Your task to perform on an android device: check android version Image 0: 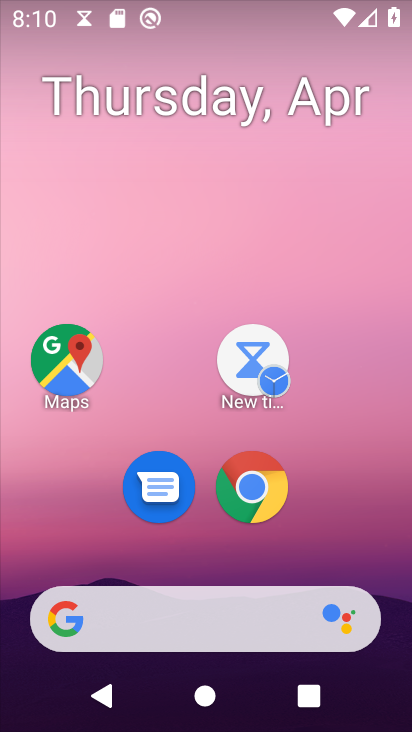
Step 0: drag from (364, 479) to (337, 102)
Your task to perform on an android device: check android version Image 1: 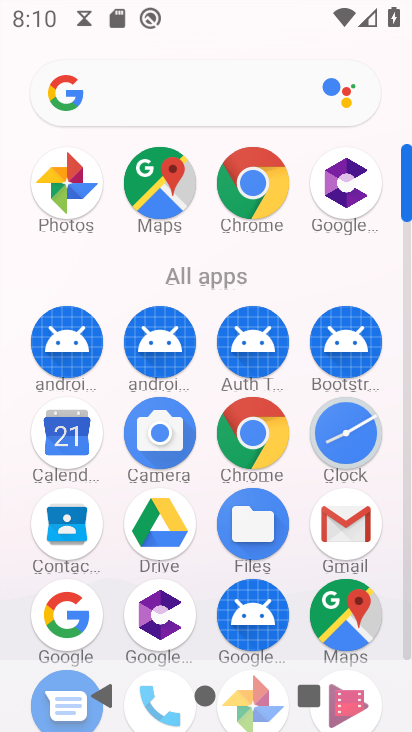
Step 1: drag from (297, 590) to (319, 265)
Your task to perform on an android device: check android version Image 2: 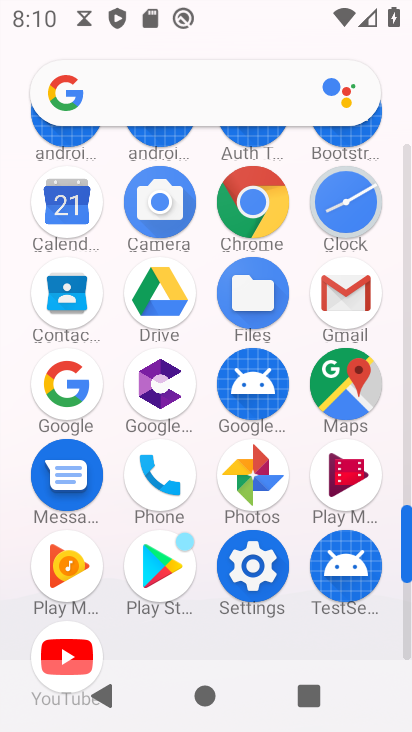
Step 2: click (263, 594)
Your task to perform on an android device: check android version Image 3: 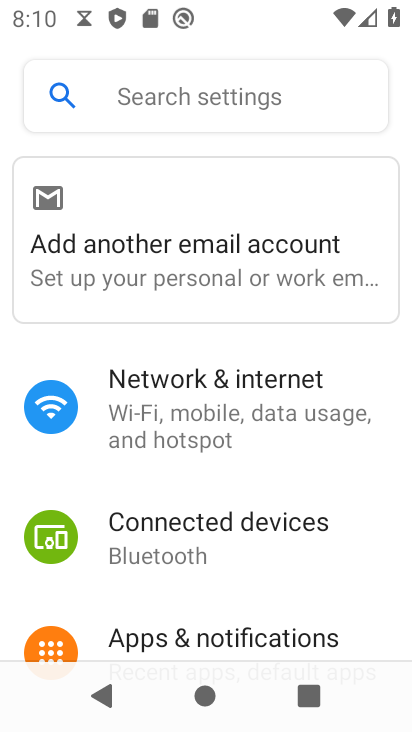
Step 3: drag from (385, 542) to (362, 144)
Your task to perform on an android device: check android version Image 4: 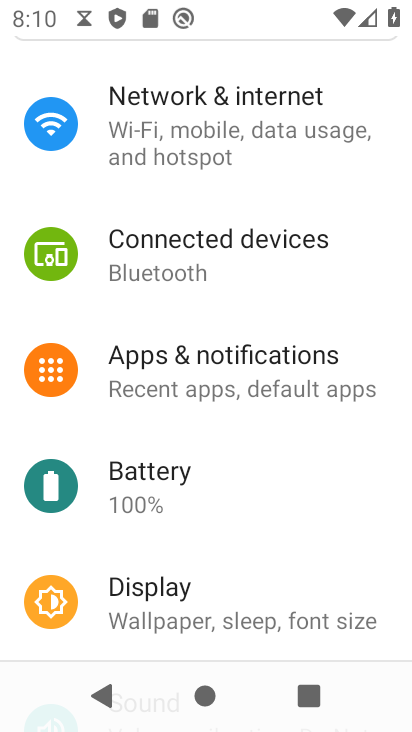
Step 4: drag from (300, 587) to (341, 124)
Your task to perform on an android device: check android version Image 5: 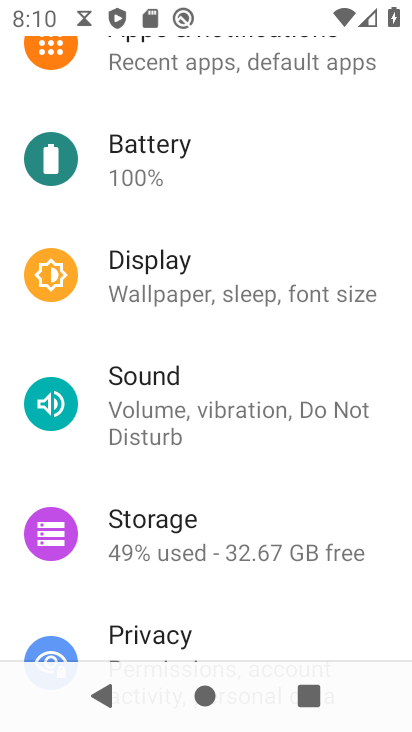
Step 5: drag from (354, 606) to (380, 75)
Your task to perform on an android device: check android version Image 6: 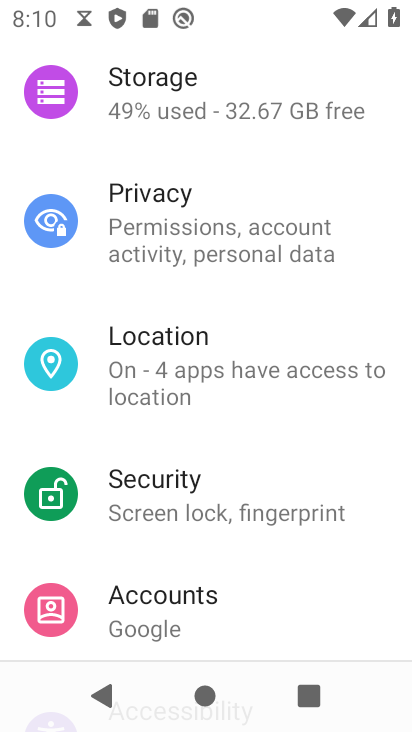
Step 6: drag from (272, 629) to (286, 112)
Your task to perform on an android device: check android version Image 7: 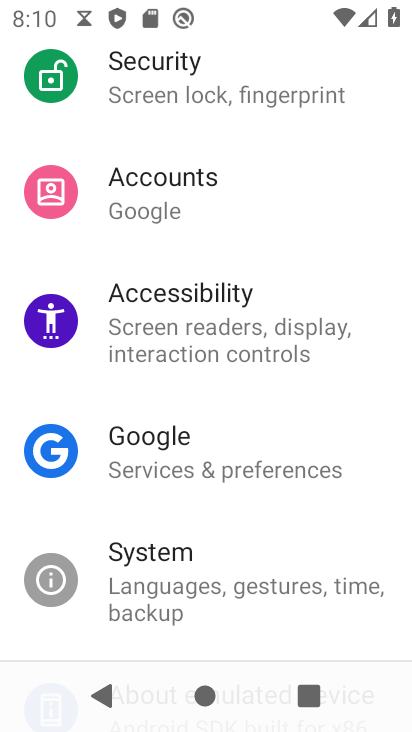
Step 7: drag from (325, 580) to (326, 235)
Your task to perform on an android device: check android version Image 8: 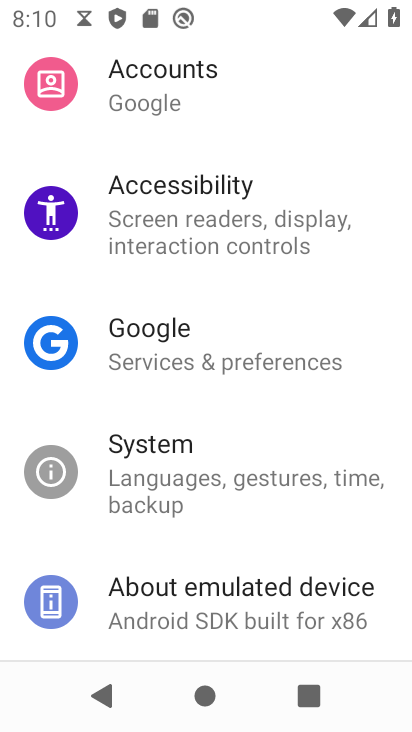
Step 8: click (243, 605)
Your task to perform on an android device: check android version Image 9: 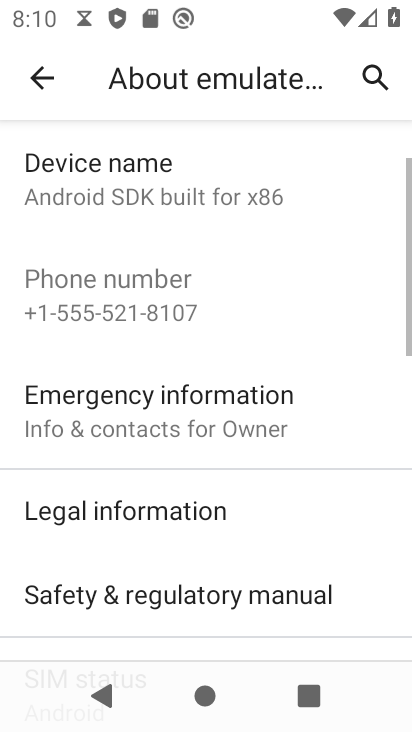
Step 9: drag from (370, 539) to (332, 166)
Your task to perform on an android device: check android version Image 10: 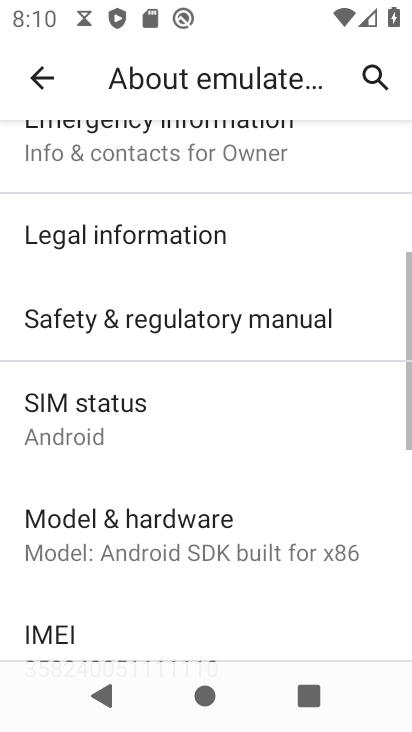
Step 10: drag from (361, 474) to (339, 184)
Your task to perform on an android device: check android version Image 11: 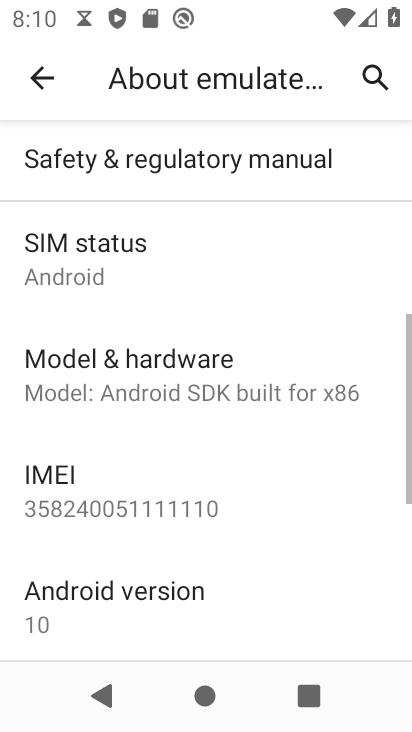
Step 11: click (146, 619)
Your task to perform on an android device: check android version Image 12: 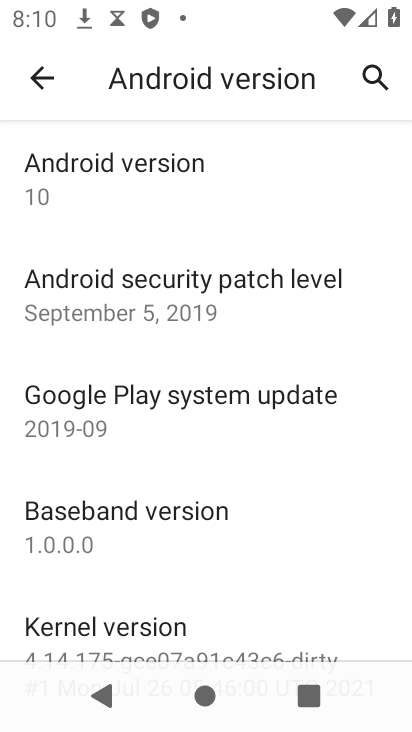
Step 12: click (113, 191)
Your task to perform on an android device: check android version Image 13: 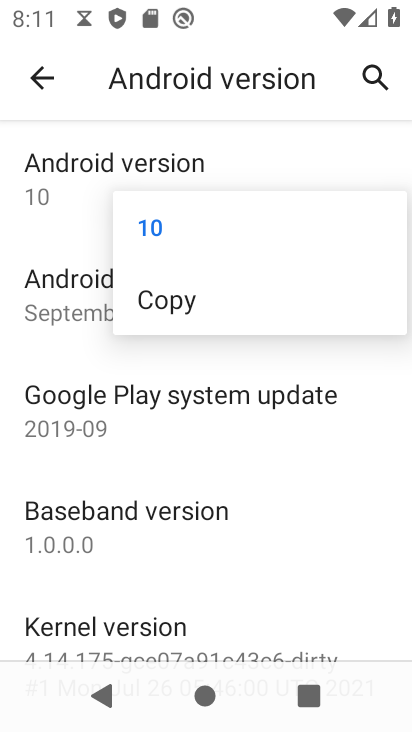
Step 13: task complete